Your task to perform on an android device: Search for sushi restaurants on Maps Image 0: 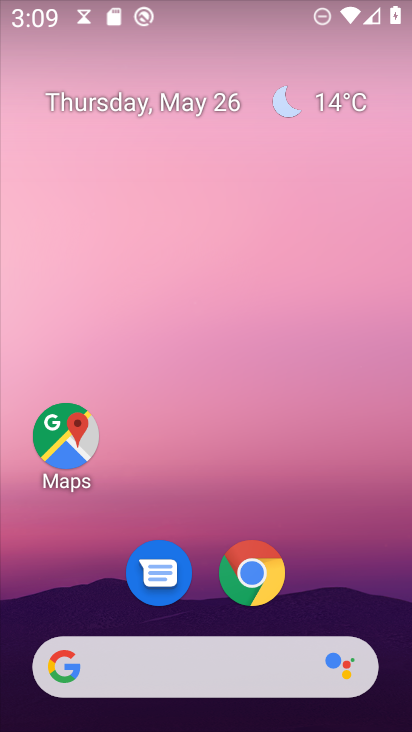
Step 0: drag from (347, 579) to (215, 10)
Your task to perform on an android device: Search for sushi restaurants on Maps Image 1: 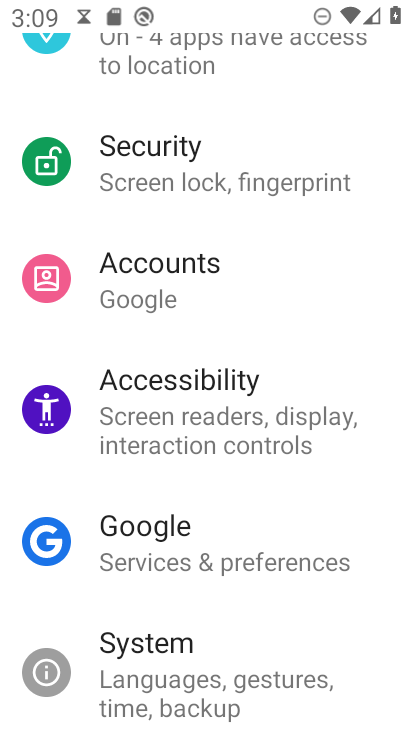
Step 1: drag from (292, 549) to (237, 129)
Your task to perform on an android device: Search for sushi restaurants on Maps Image 2: 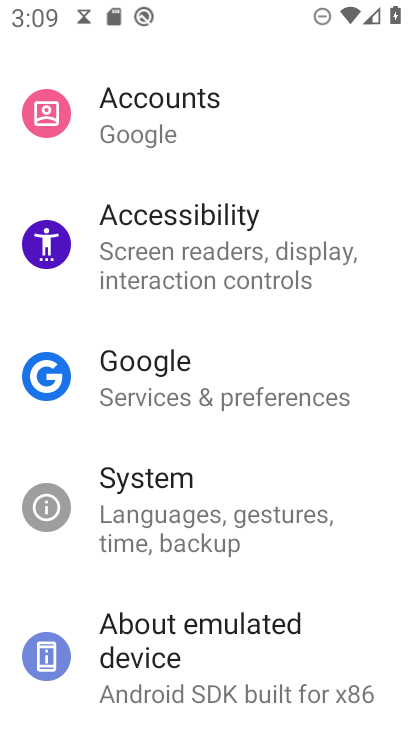
Step 2: drag from (293, 205) to (281, 549)
Your task to perform on an android device: Search for sushi restaurants on Maps Image 3: 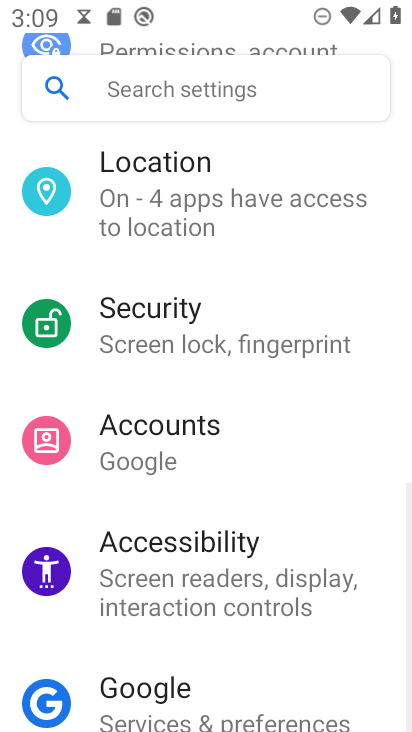
Step 3: drag from (273, 212) to (275, 554)
Your task to perform on an android device: Search for sushi restaurants on Maps Image 4: 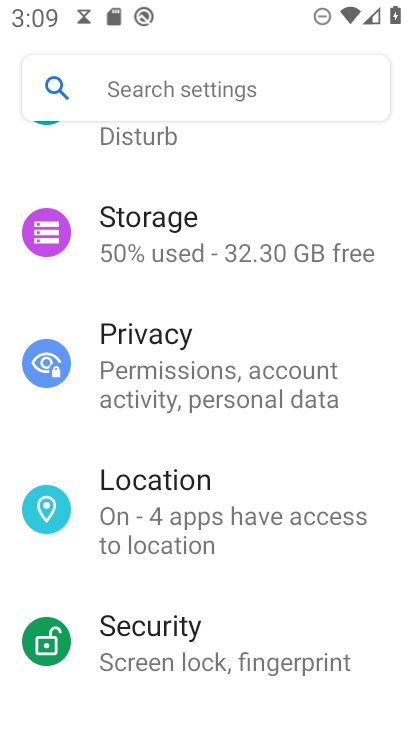
Step 4: press home button
Your task to perform on an android device: Search for sushi restaurants on Maps Image 5: 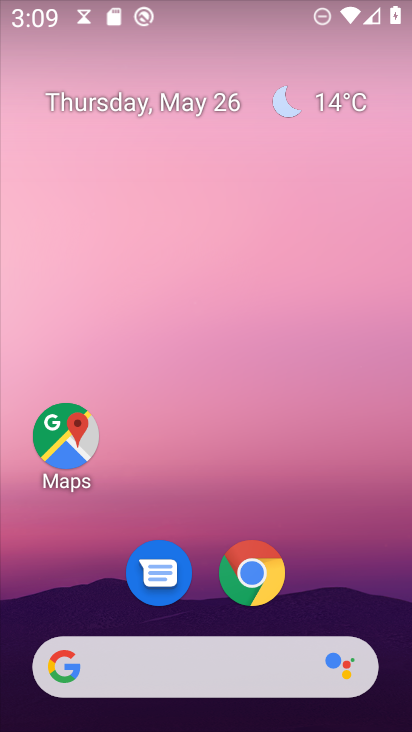
Step 5: click (60, 430)
Your task to perform on an android device: Search for sushi restaurants on Maps Image 6: 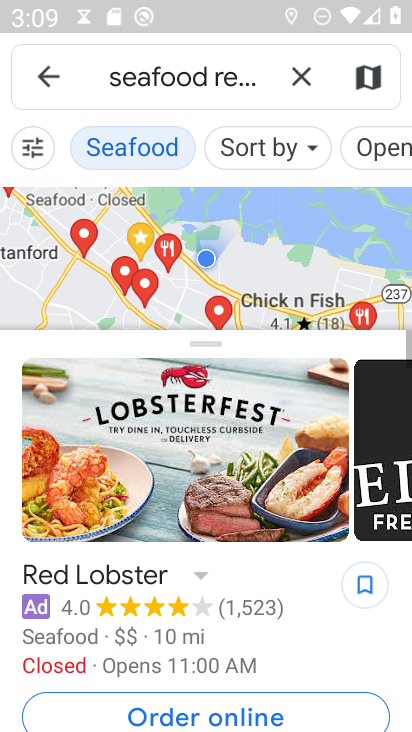
Step 6: click (294, 71)
Your task to perform on an android device: Search for sushi restaurants on Maps Image 7: 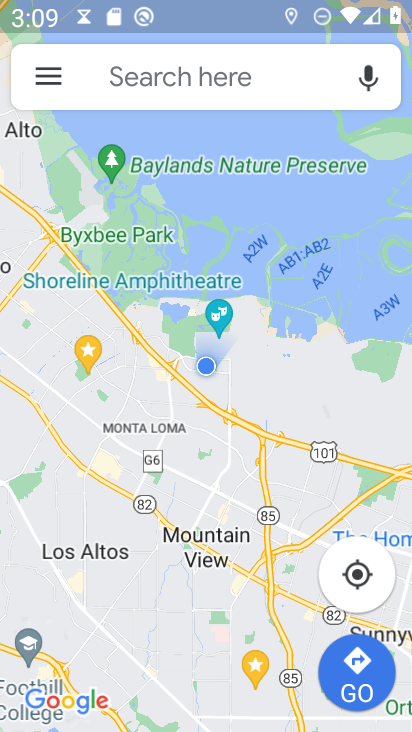
Step 7: click (258, 76)
Your task to perform on an android device: Search for sushi restaurants on Maps Image 8: 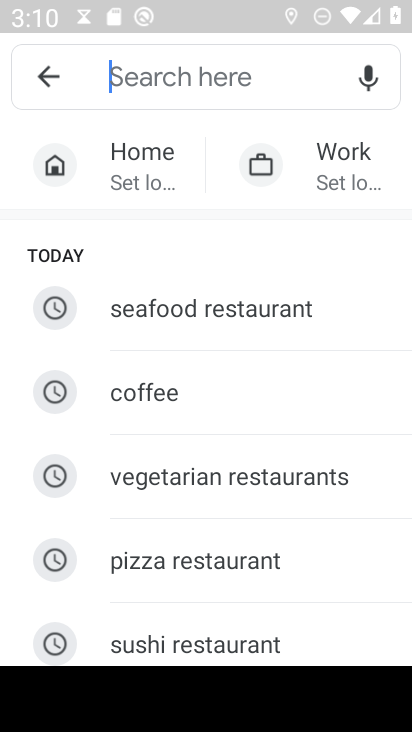
Step 8: type "sushi restaurants"
Your task to perform on an android device: Search for sushi restaurants on Maps Image 9: 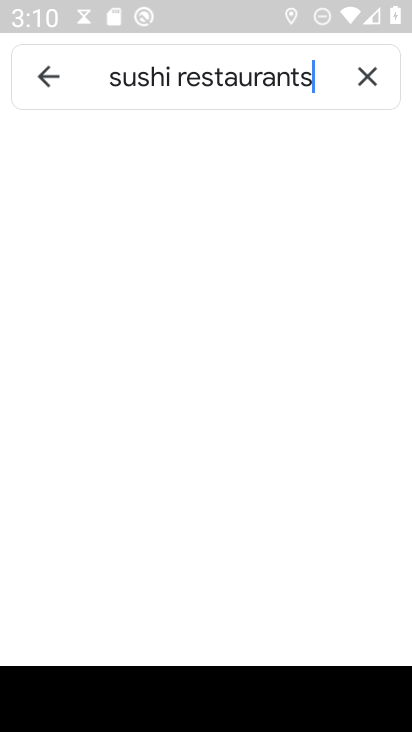
Step 9: type ""
Your task to perform on an android device: Search for sushi restaurants on Maps Image 10: 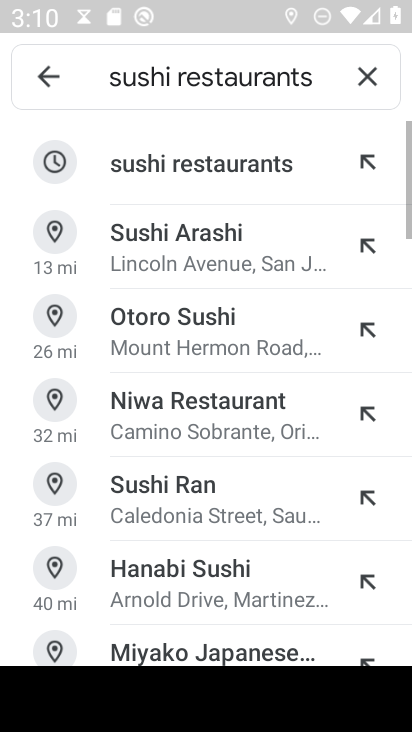
Step 10: click (173, 166)
Your task to perform on an android device: Search for sushi restaurants on Maps Image 11: 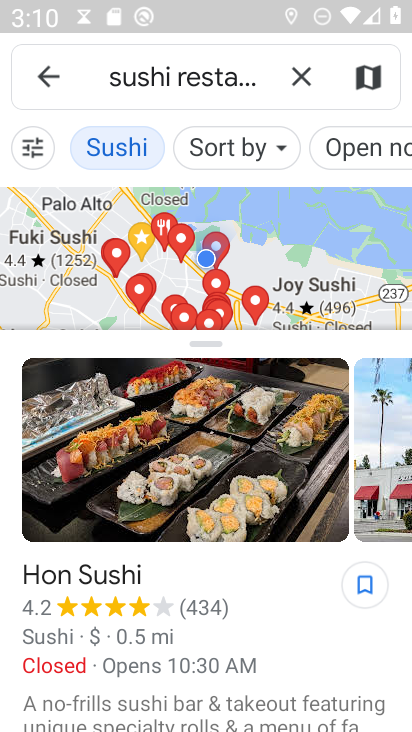
Step 11: task complete